Your task to perform on an android device: What's the weather going to be tomorrow? Image 0: 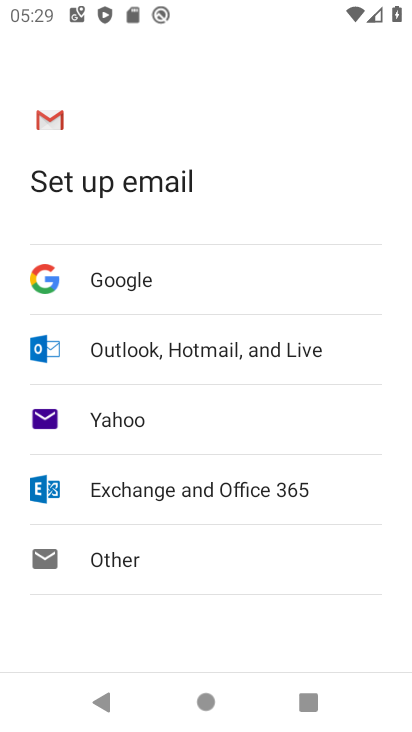
Step 0: press home button
Your task to perform on an android device: What's the weather going to be tomorrow? Image 1: 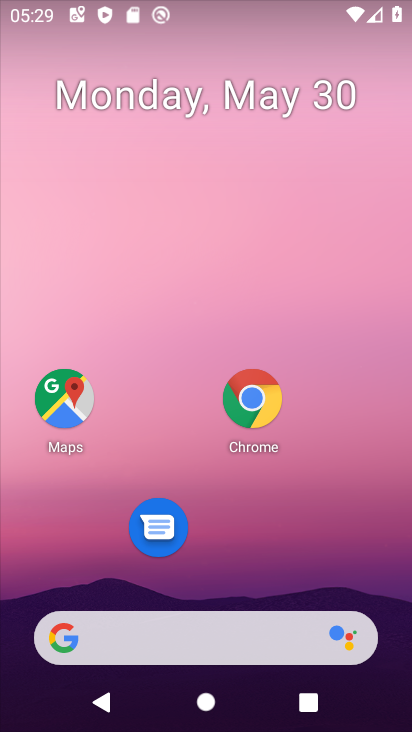
Step 1: drag from (227, 728) to (222, 56)
Your task to perform on an android device: What's the weather going to be tomorrow? Image 2: 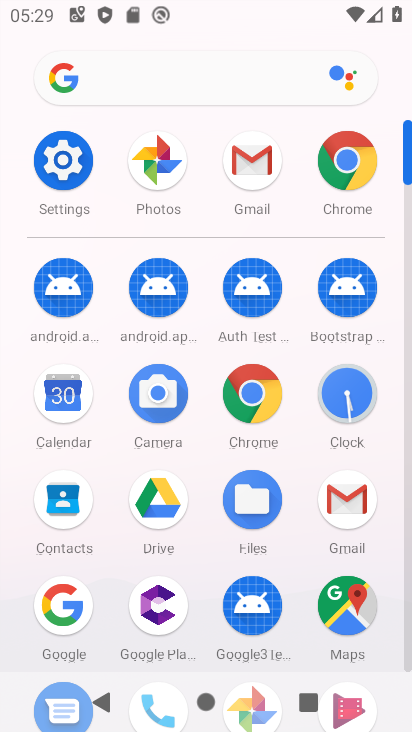
Step 2: click (63, 600)
Your task to perform on an android device: What's the weather going to be tomorrow? Image 3: 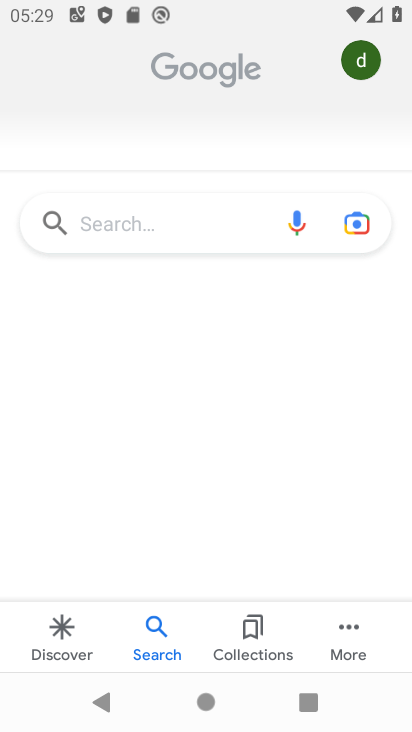
Step 3: click (132, 228)
Your task to perform on an android device: What's the weather going to be tomorrow? Image 4: 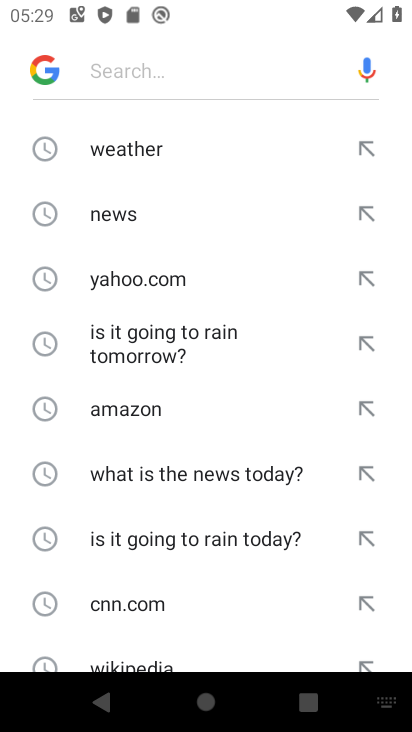
Step 4: click (135, 148)
Your task to perform on an android device: What's the weather going to be tomorrow? Image 5: 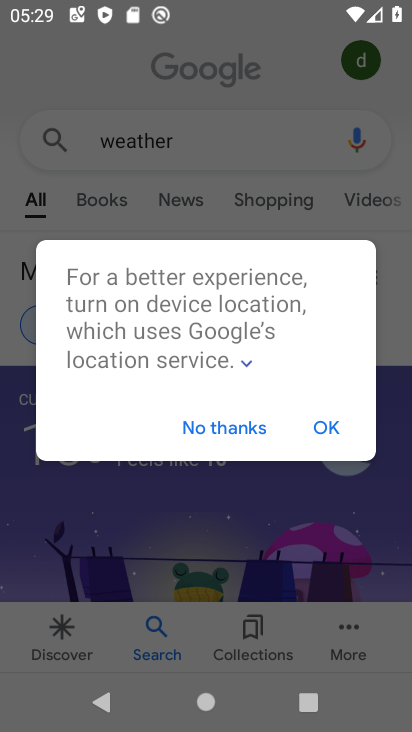
Step 5: click (244, 431)
Your task to perform on an android device: What's the weather going to be tomorrow? Image 6: 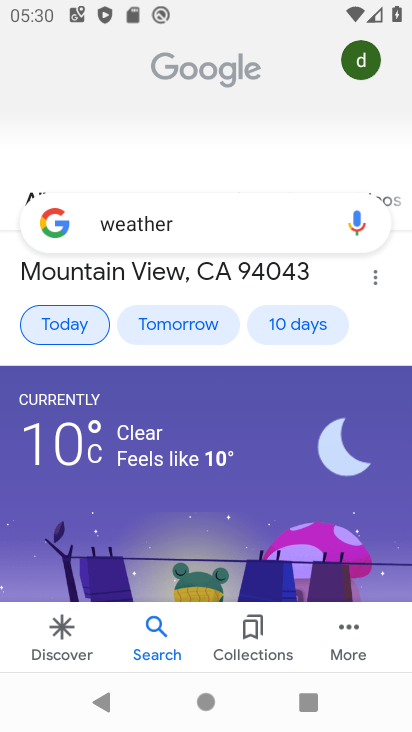
Step 6: click (169, 332)
Your task to perform on an android device: What's the weather going to be tomorrow? Image 7: 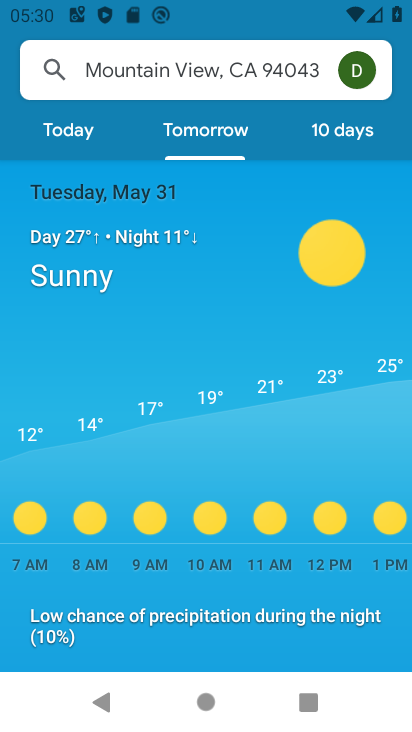
Step 7: task complete